Your task to perform on an android device: check out phone information Image 0: 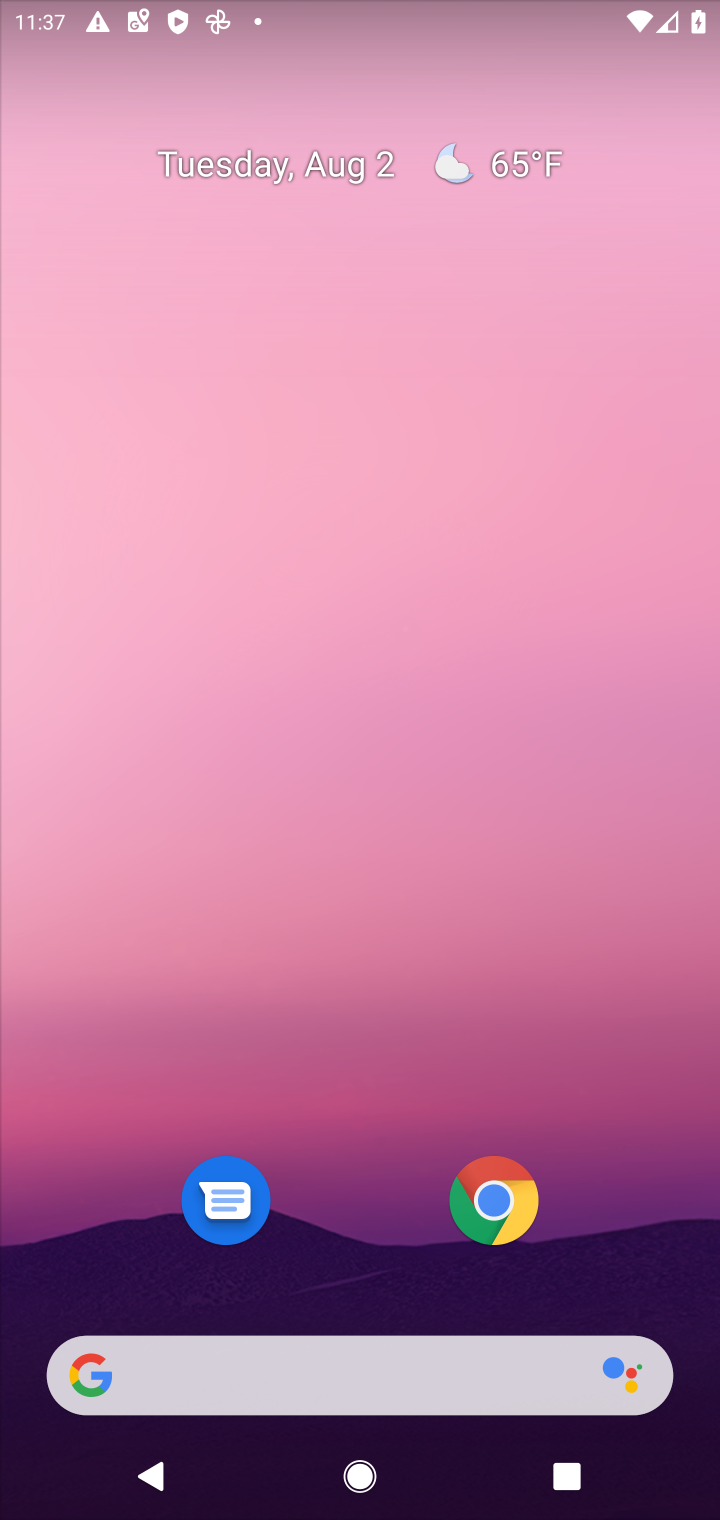
Step 0: drag from (679, 1274) to (542, 429)
Your task to perform on an android device: check out phone information Image 1: 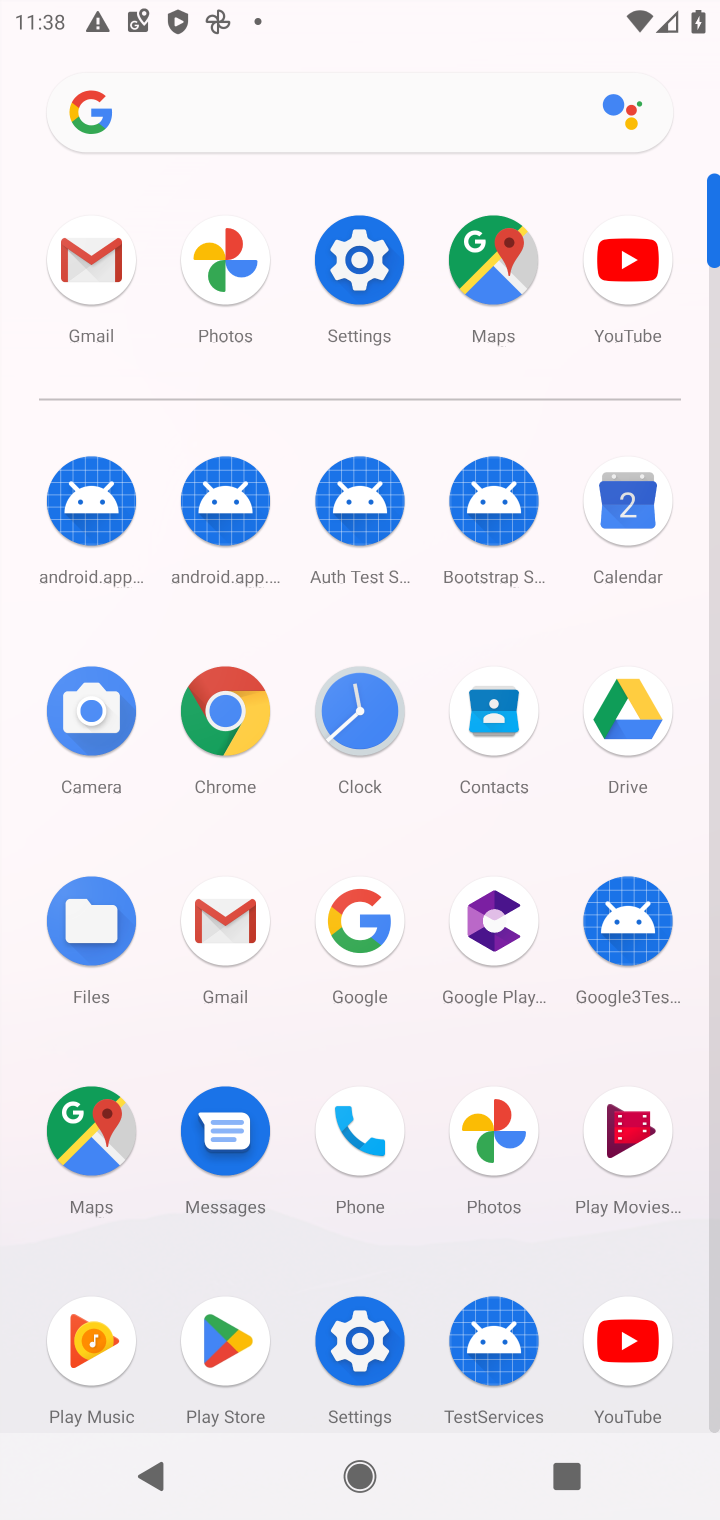
Step 1: click (364, 1343)
Your task to perform on an android device: check out phone information Image 2: 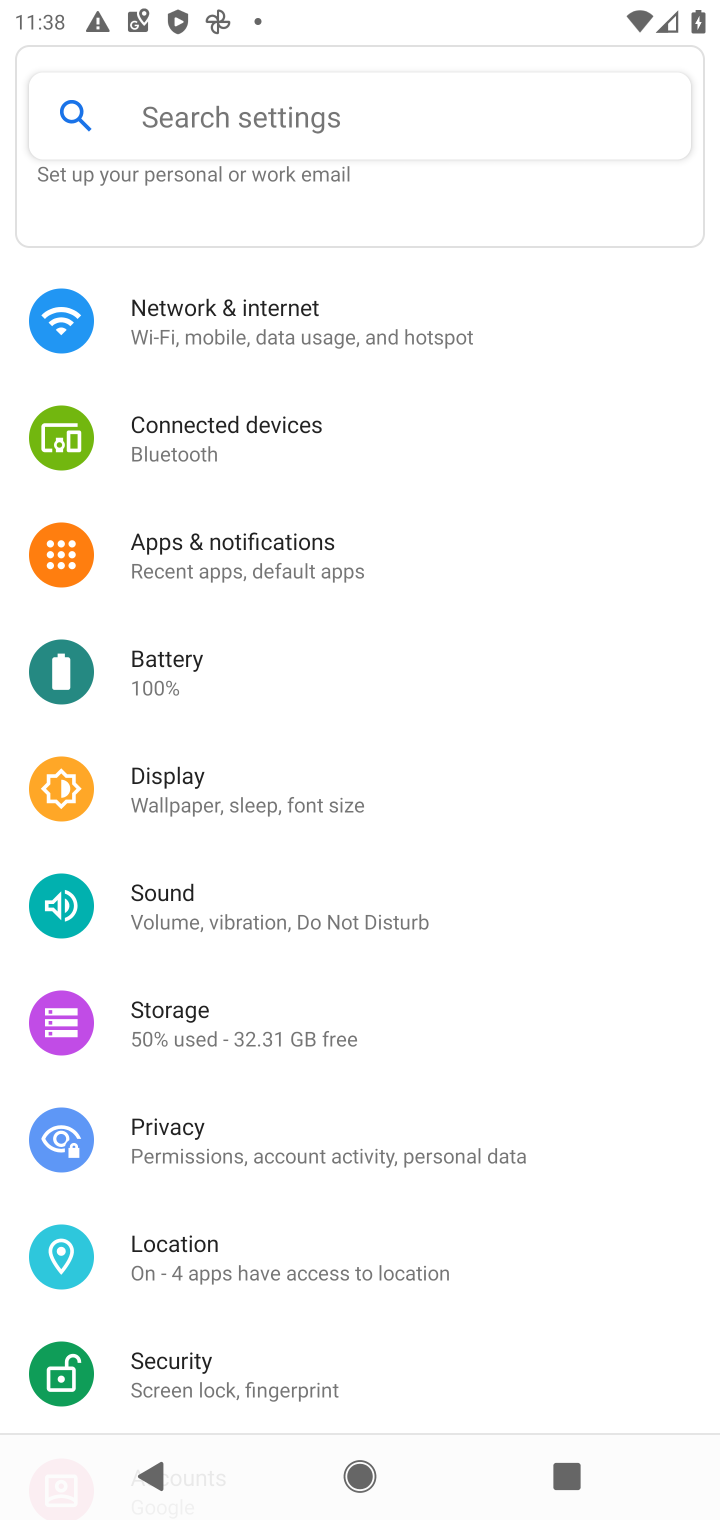
Step 2: drag from (536, 1351) to (509, 484)
Your task to perform on an android device: check out phone information Image 3: 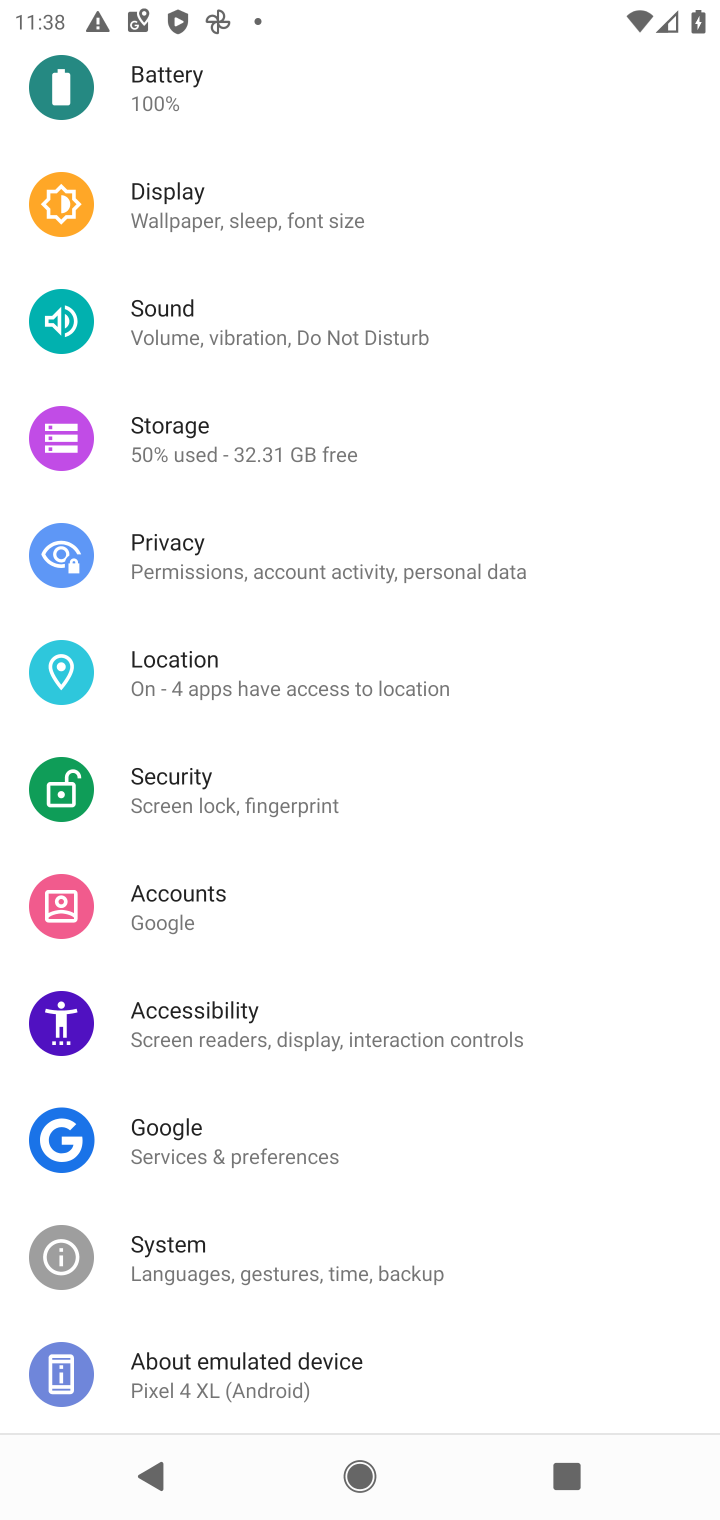
Step 3: click (190, 1370)
Your task to perform on an android device: check out phone information Image 4: 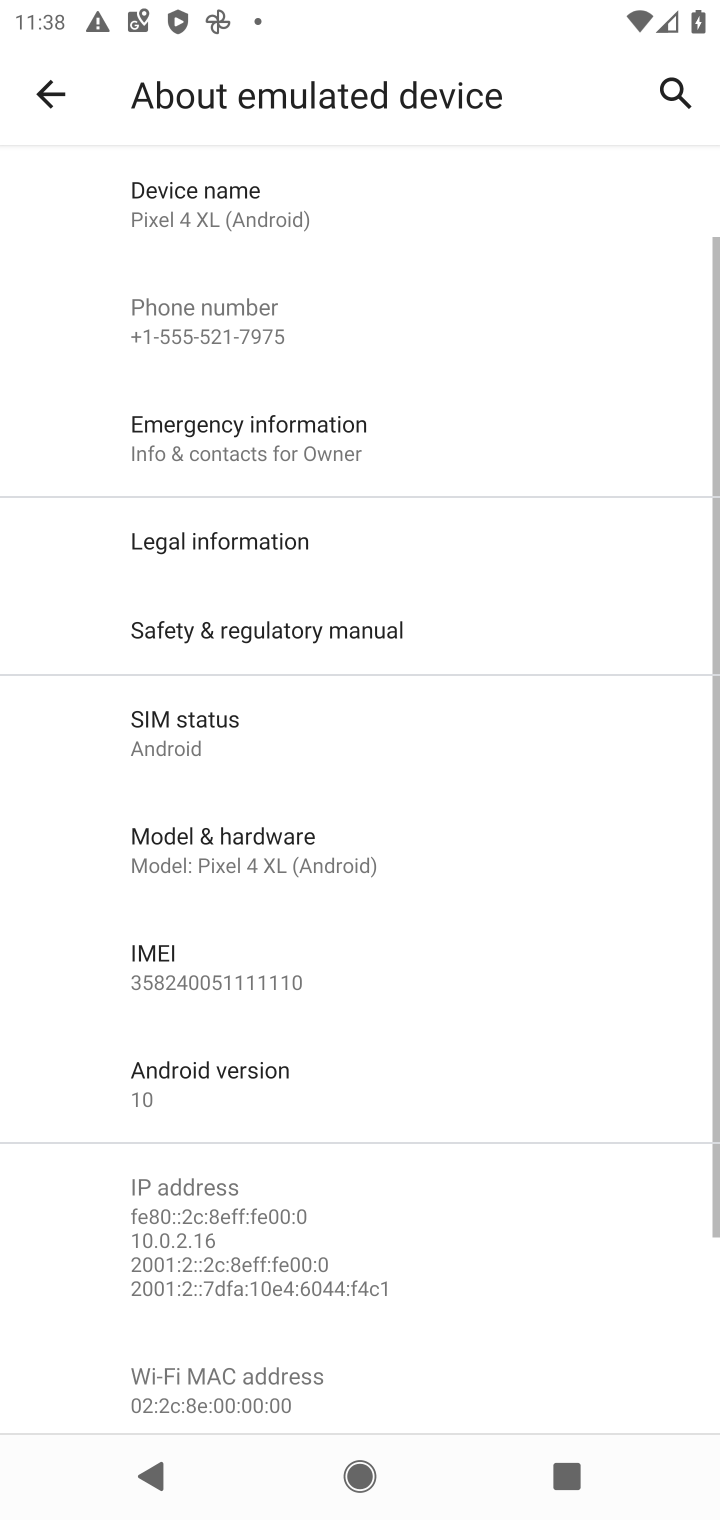
Step 4: click (491, 1284)
Your task to perform on an android device: check out phone information Image 5: 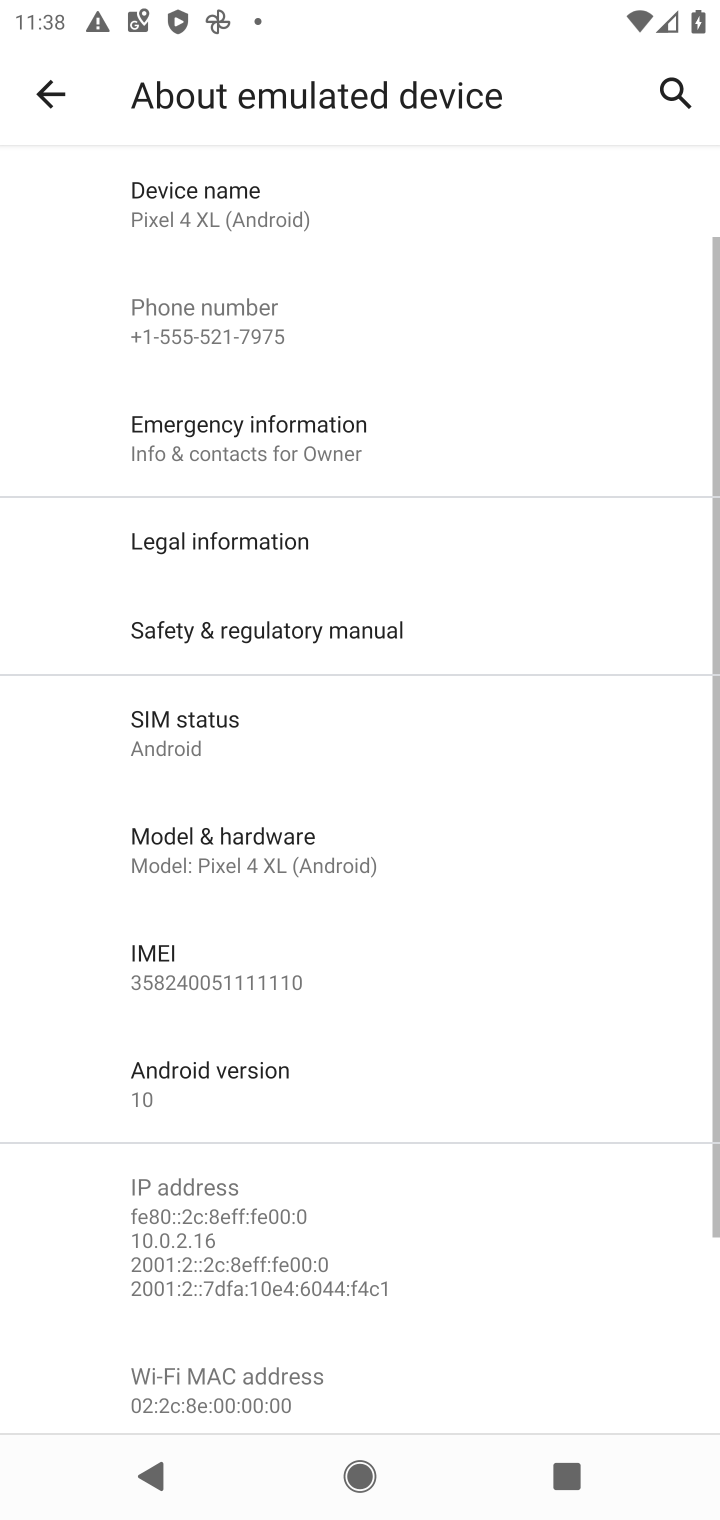
Step 5: task complete